Your task to perform on an android device: empty trash in google photos Image 0: 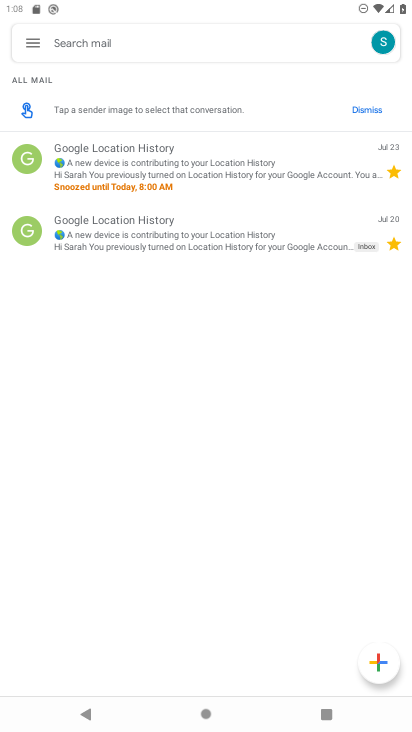
Step 0: press home button
Your task to perform on an android device: empty trash in google photos Image 1: 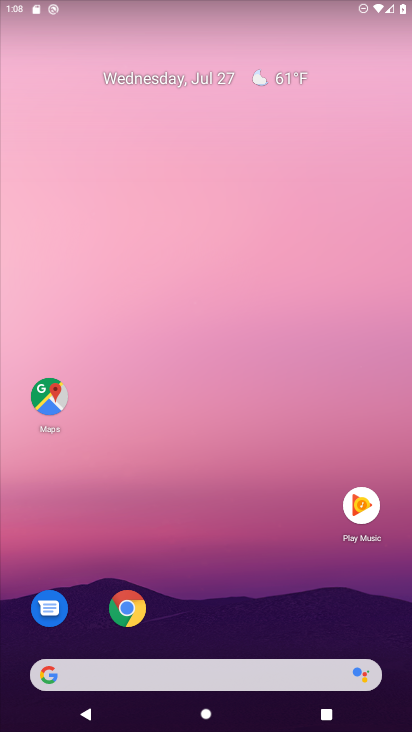
Step 1: drag from (295, 618) to (294, 226)
Your task to perform on an android device: empty trash in google photos Image 2: 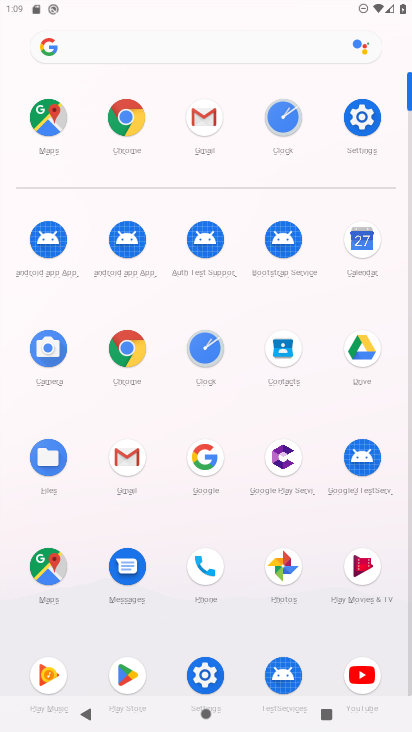
Step 2: click (286, 568)
Your task to perform on an android device: empty trash in google photos Image 3: 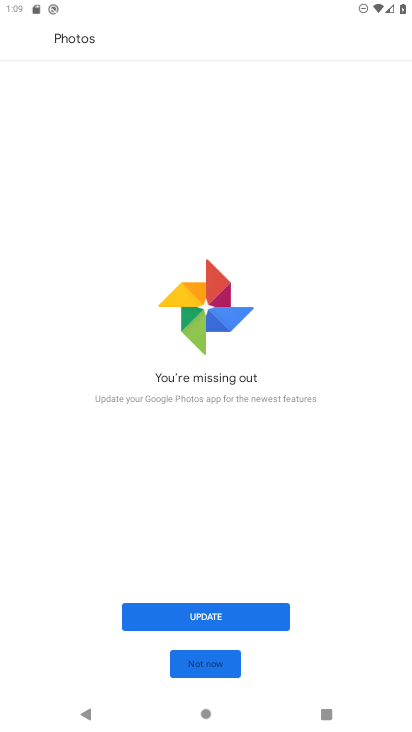
Step 3: click (262, 615)
Your task to perform on an android device: empty trash in google photos Image 4: 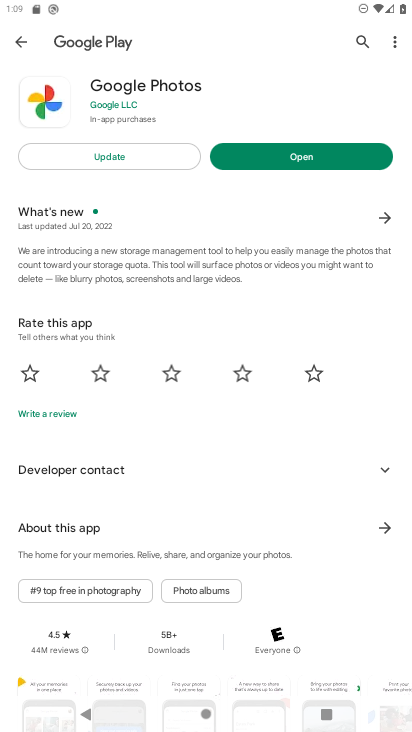
Step 4: click (122, 149)
Your task to perform on an android device: empty trash in google photos Image 5: 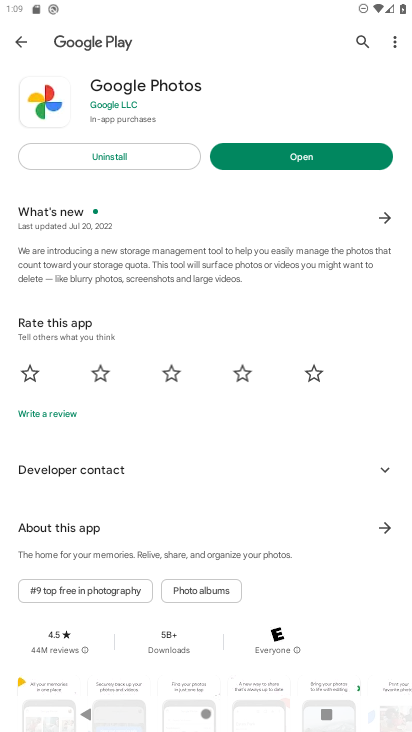
Step 5: click (327, 156)
Your task to perform on an android device: empty trash in google photos Image 6: 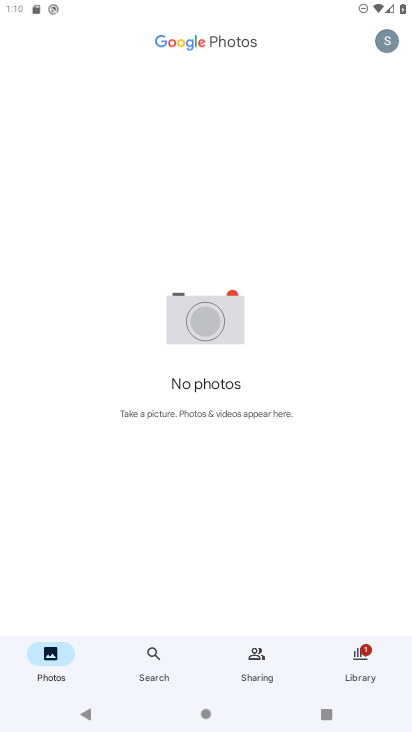
Step 6: click (360, 652)
Your task to perform on an android device: empty trash in google photos Image 7: 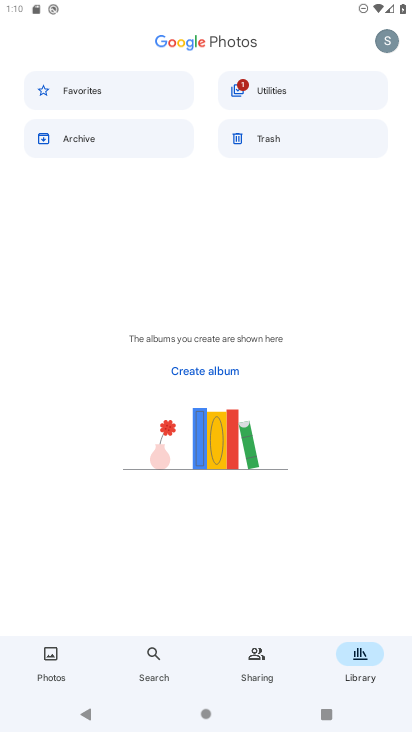
Step 7: click (278, 138)
Your task to perform on an android device: empty trash in google photos Image 8: 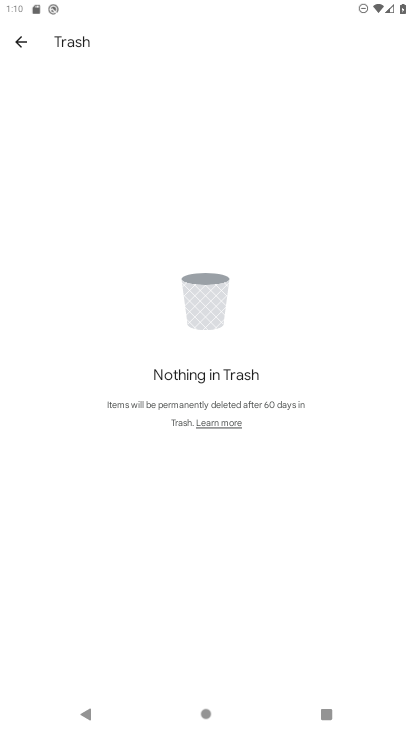
Step 8: task complete